Your task to perform on an android device: Open ESPN.com Image 0: 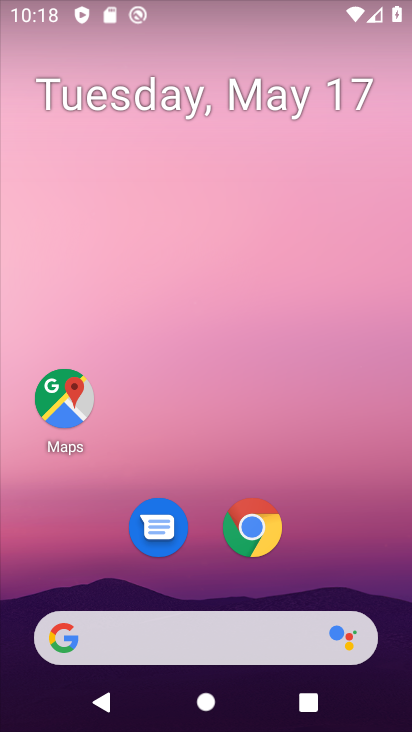
Step 0: click (273, 521)
Your task to perform on an android device: Open ESPN.com Image 1: 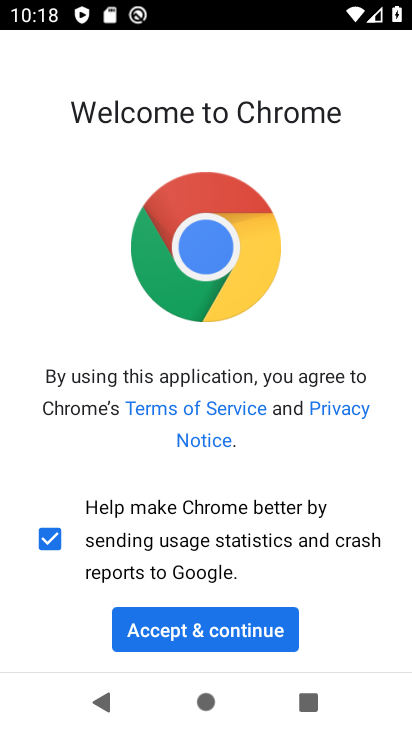
Step 1: click (207, 633)
Your task to perform on an android device: Open ESPN.com Image 2: 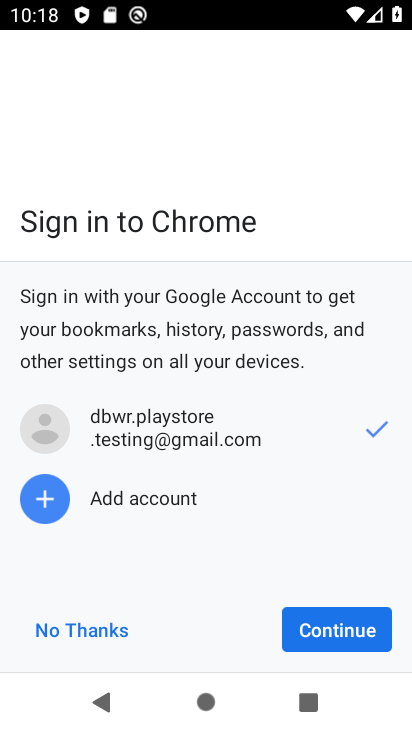
Step 2: click (291, 627)
Your task to perform on an android device: Open ESPN.com Image 3: 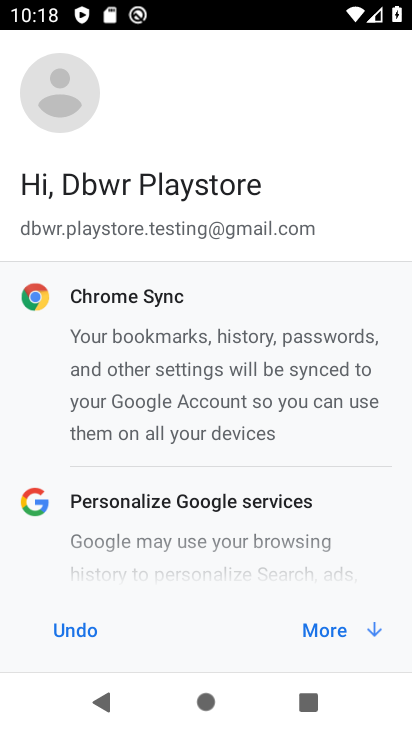
Step 3: click (320, 642)
Your task to perform on an android device: Open ESPN.com Image 4: 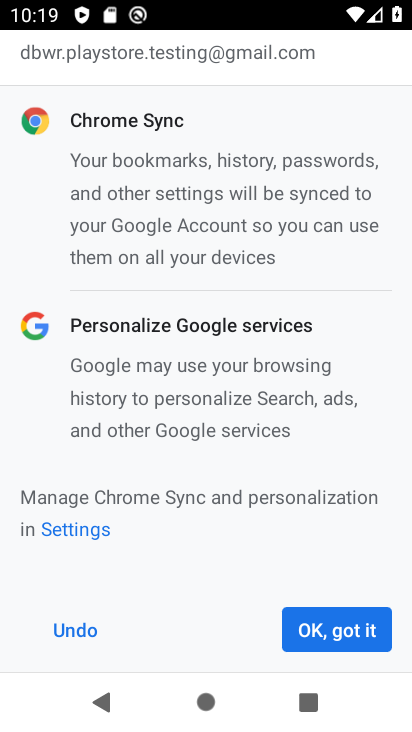
Step 4: click (315, 646)
Your task to perform on an android device: Open ESPN.com Image 5: 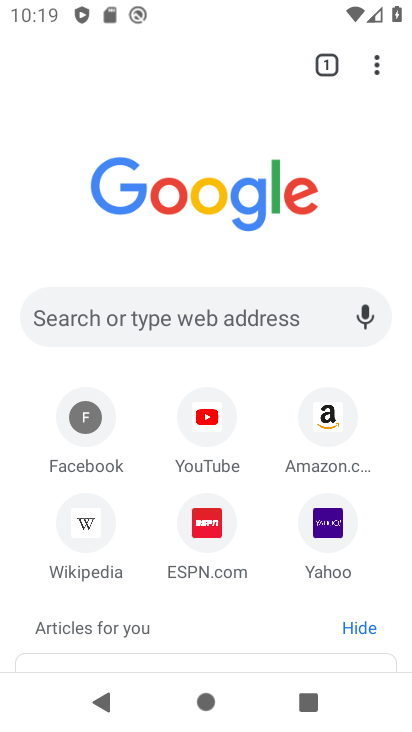
Step 5: click (152, 334)
Your task to perform on an android device: Open ESPN.com Image 6: 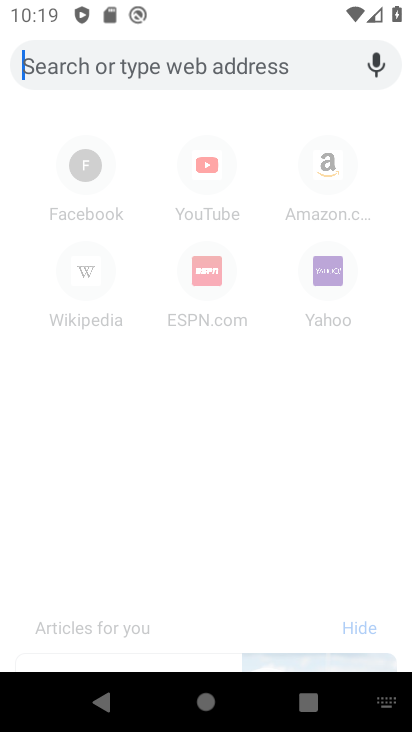
Step 6: type "ESPN.com"
Your task to perform on an android device: Open ESPN.com Image 7: 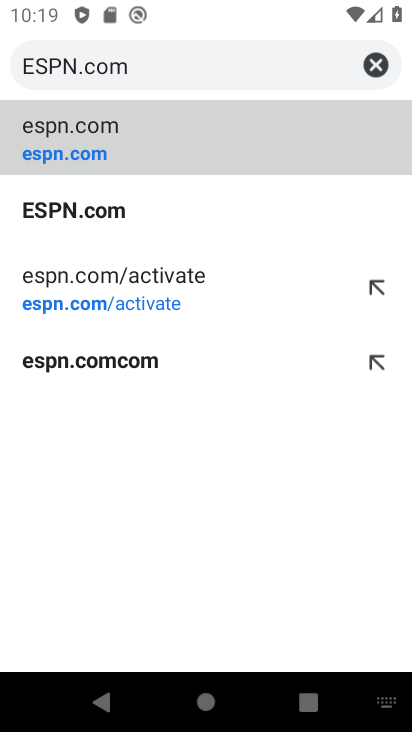
Step 7: click (158, 212)
Your task to perform on an android device: Open ESPN.com Image 8: 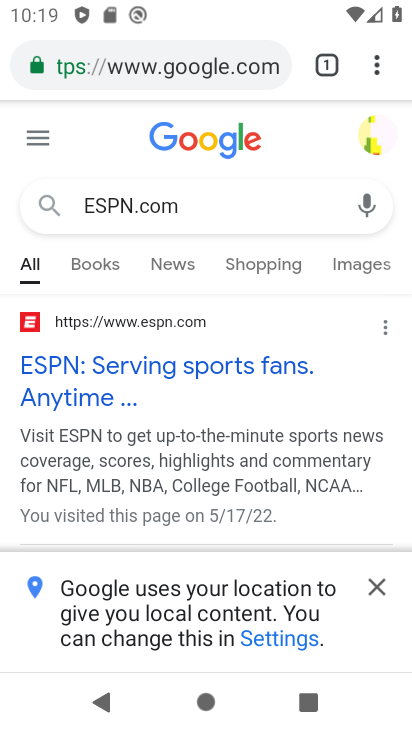
Step 8: click (110, 395)
Your task to perform on an android device: Open ESPN.com Image 9: 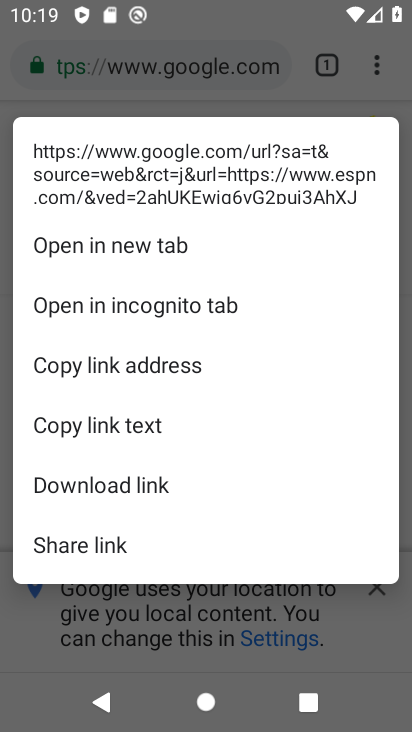
Step 9: press back button
Your task to perform on an android device: Open ESPN.com Image 10: 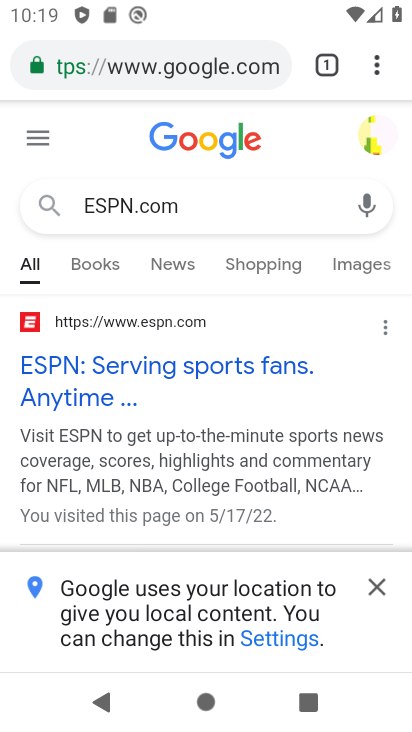
Step 10: click (101, 376)
Your task to perform on an android device: Open ESPN.com Image 11: 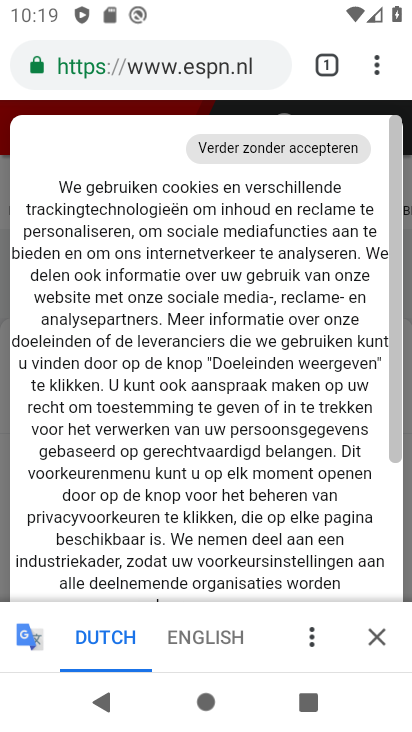
Step 11: click (175, 639)
Your task to perform on an android device: Open ESPN.com Image 12: 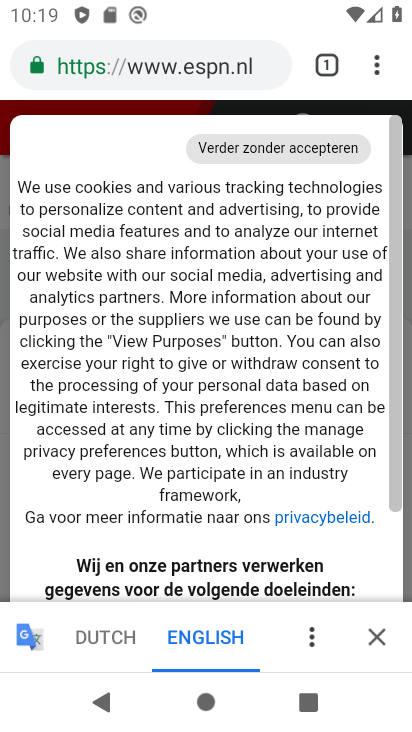
Step 12: drag from (158, 602) to (250, 207)
Your task to perform on an android device: Open ESPN.com Image 13: 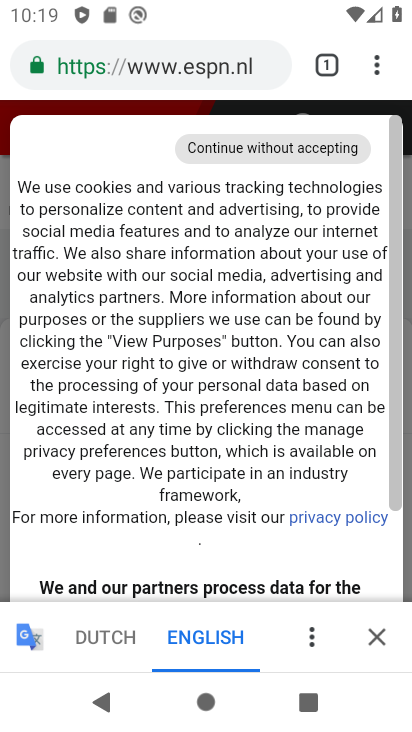
Step 13: click (377, 640)
Your task to perform on an android device: Open ESPN.com Image 14: 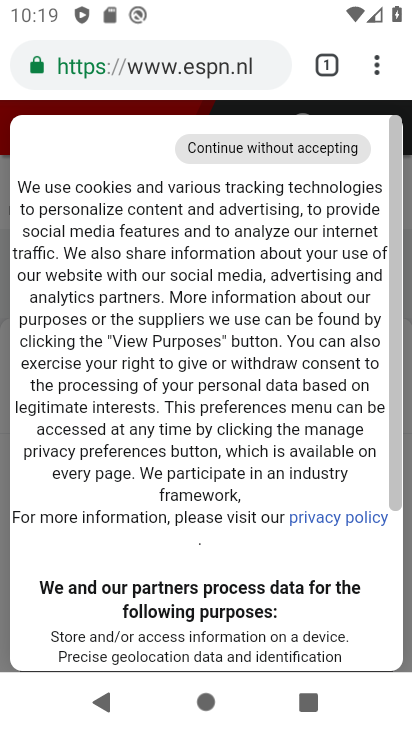
Step 14: drag from (184, 617) to (304, 175)
Your task to perform on an android device: Open ESPN.com Image 15: 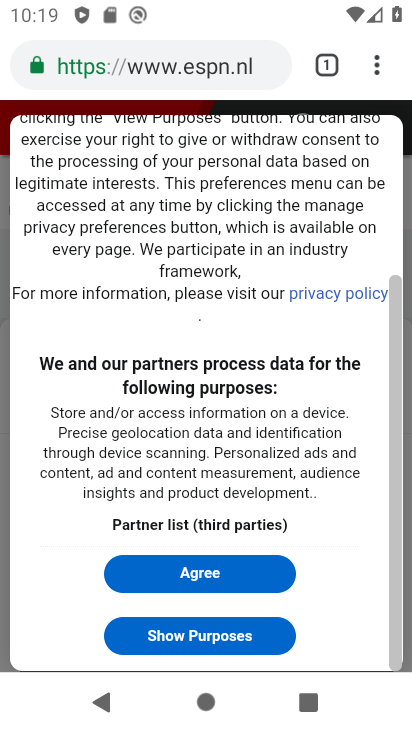
Step 15: click (251, 567)
Your task to perform on an android device: Open ESPN.com Image 16: 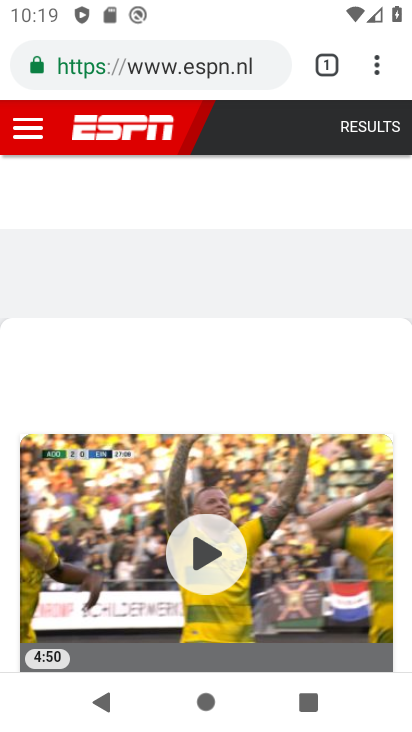
Step 16: task complete